Your task to perform on an android device: turn on airplane mode Image 0: 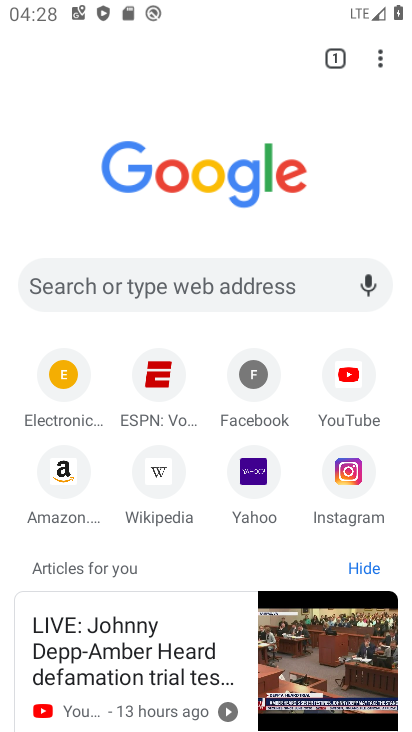
Step 0: press back button
Your task to perform on an android device: turn on airplane mode Image 1: 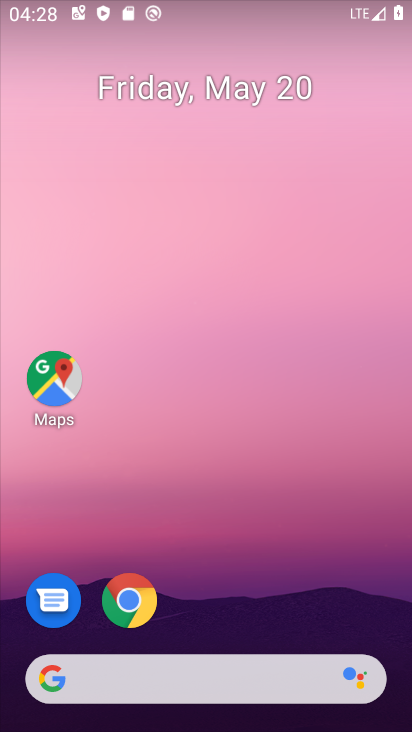
Step 1: drag from (313, 545) to (222, 45)
Your task to perform on an android device: turn on airplane mode Image 2: 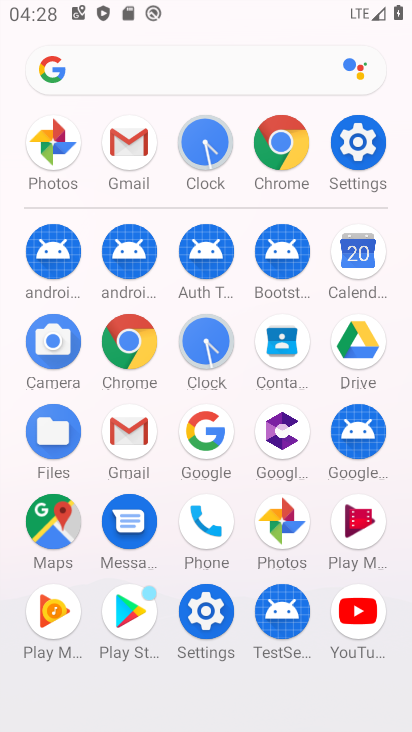
Step 2: click (205, 608)
Your task to perform on an android device: turn on airplane mode Image 3: 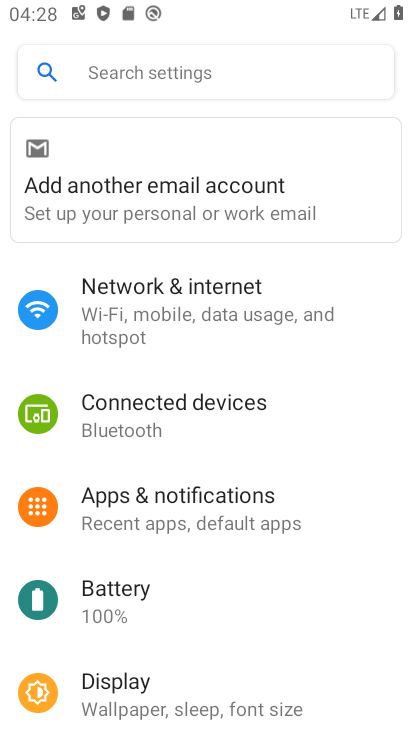
Step 3: click (199, 308)
Your task to perform on an android device: turn on airplane mode Image 4: 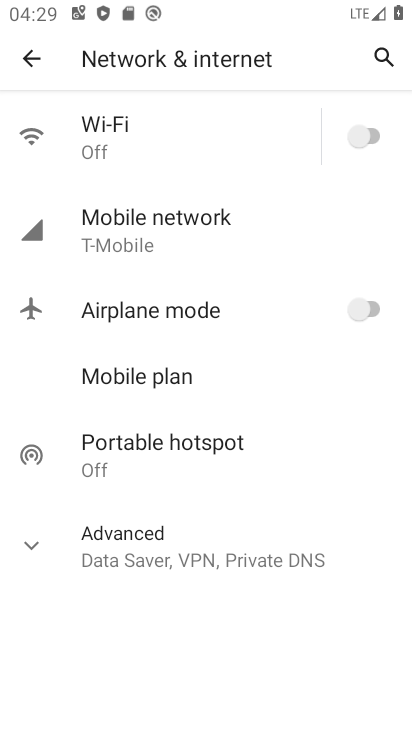
Step 4: click (373, 302)
Your task to perform on an android device: turn on airplane mode Image 5: 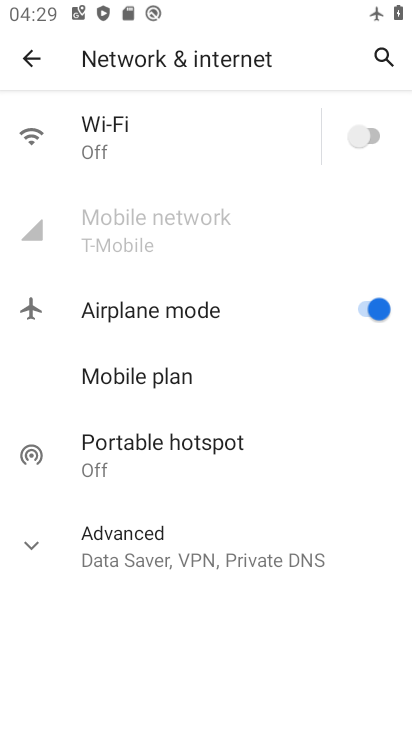
Step 5: task complete